Your task to perform on an android device: Show me popular videos on Youtube Image 0: 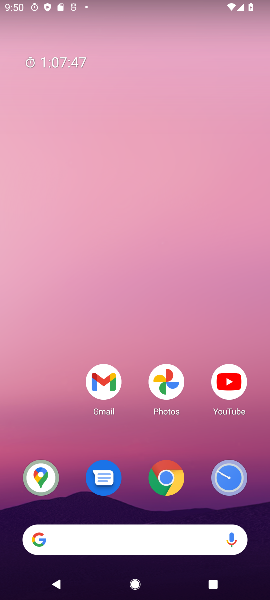
Step 0: click (217, 398)
Your task to perform on an android device: Show me popular videos on Youtube Image 1: 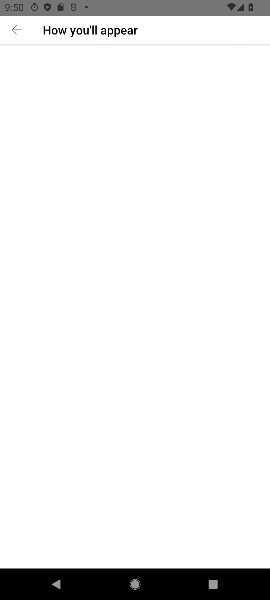
Step 1: click (11, 31)
Your task to perform on an android device: Show me popular videos on Youtube Image 2: 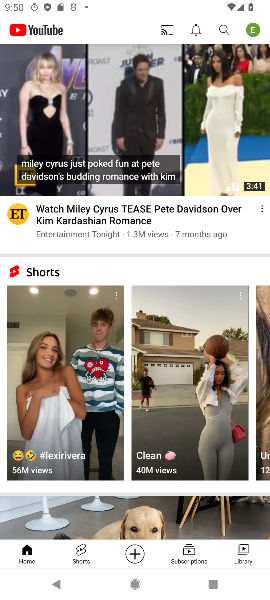
Step 2: click (221, 32)
Your task to perform on an android device: Show me popular videos on Youtube Image 3: 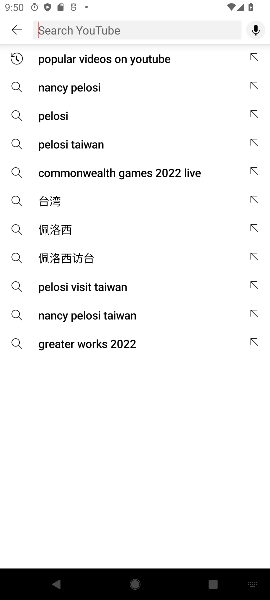
Step 3: type " popular videos on Youtube"
Your task to perform on an android device: Show me popular videos on Youtube Image 4: 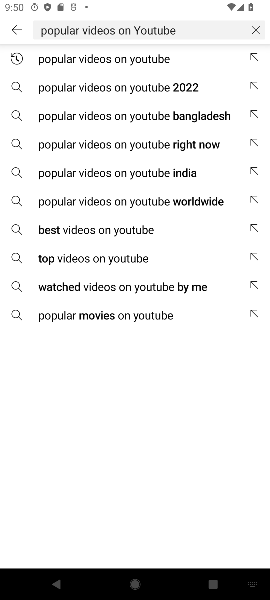
Step 4: click (159, 58)
Your task to perform on an android device: Show me popular videos on Youtube Image 5: 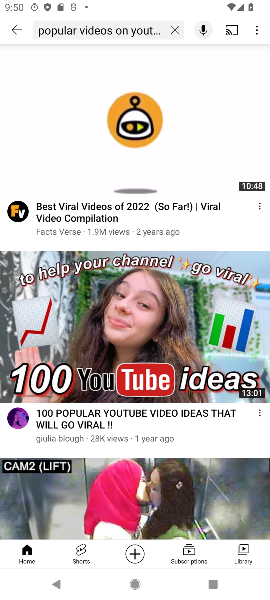
Step 5: task complete